Your task to perform on an android device: Go to CNN.com Image 0: 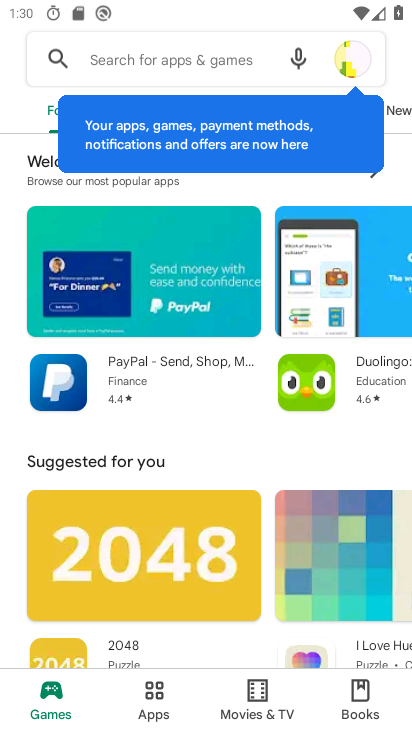
Step 0: press home button
Your task to perform on an android device: Go to CNN.com Image 1: 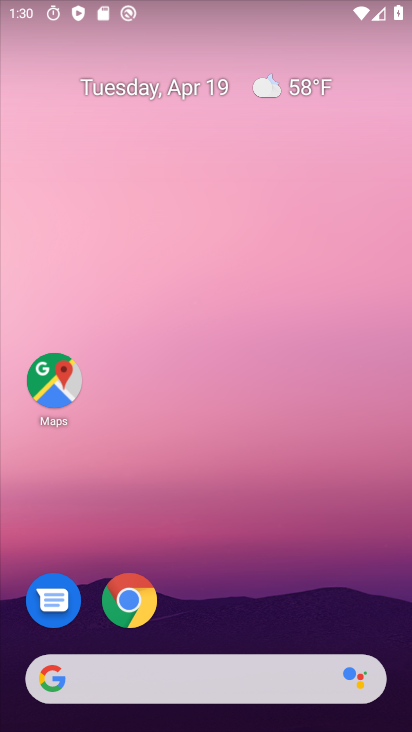
Step 1: drag from (276, 710) to (323, 269)
Your task to perform on an android device: Go to CNN.com Image 2: 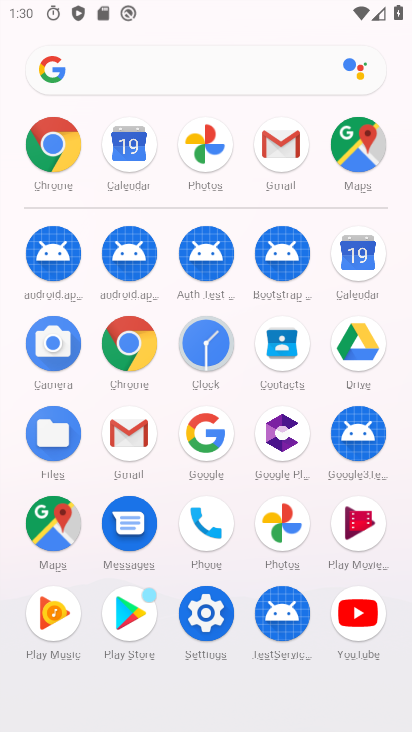
Step 2: click (40, 170)
Your task to perform on an android device: Go to CNN.com Image 3: 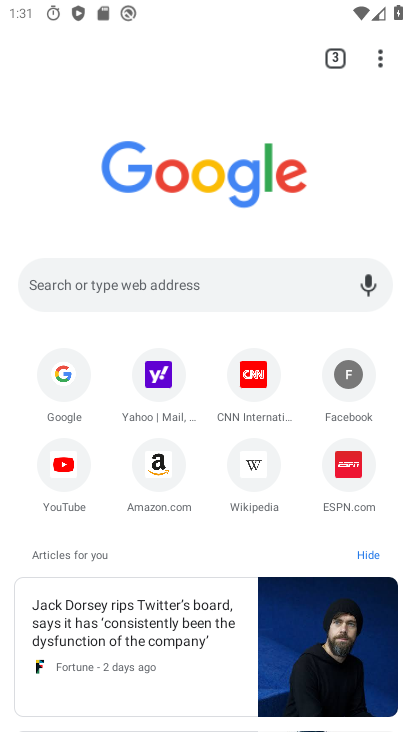
Step 3: click (224, 373)
Your task to perform on an android device: Go to CNN.com Image 4: 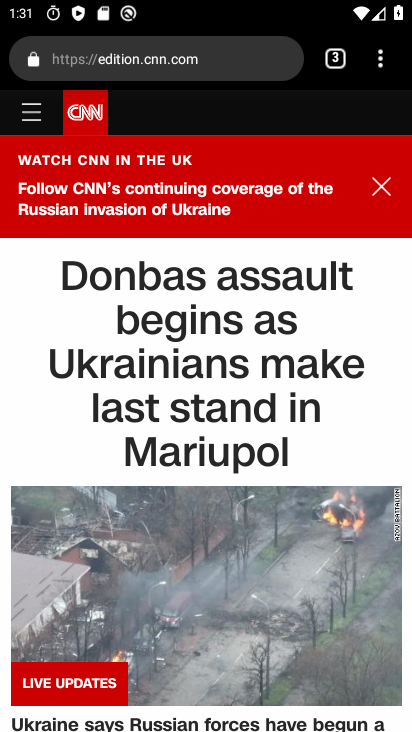
Step 4: task complete